Your task to perform on an android device: Is it going to rain today? Image 0: 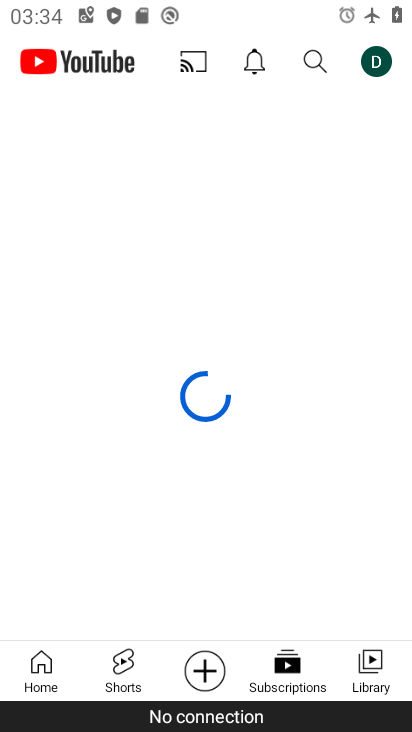
Step 0: press home button
Your task to perform on an android device: Is it going to rain today? Image 1: 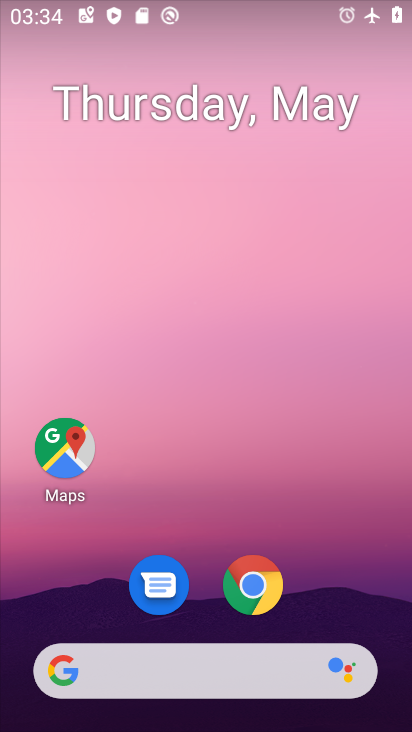
Step 1: click (170, 667)
Your task to perform on an android device: Is it going to rain today? Image 2: 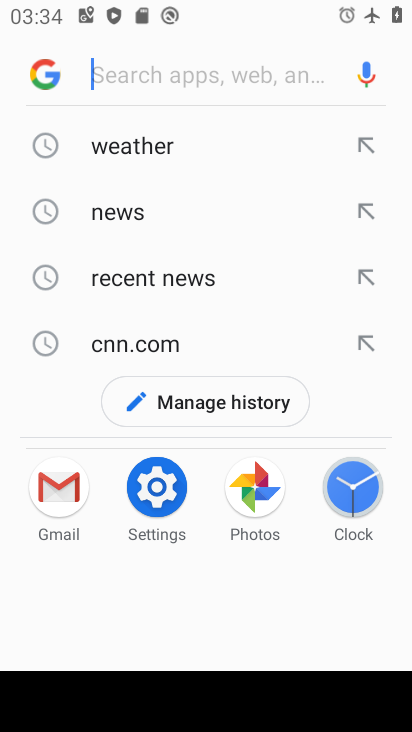
Step 2: click (117, 146)
Your task to perform on an android device: Is it going to rain today? Image 3: 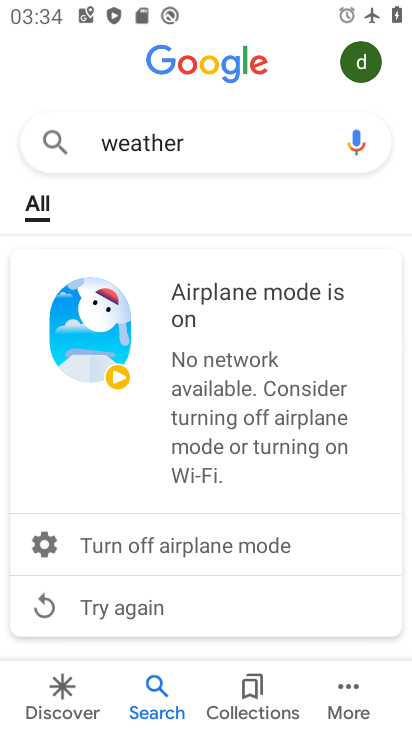
Step 3: task complete